Your task to perform on an android device: turn off javascript in the chrome app Image 0: 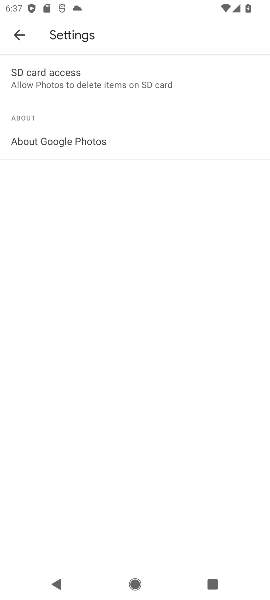
Step 0: press home button
Your task to perform on an android device: turn off javascript in the chrome app Image 1: 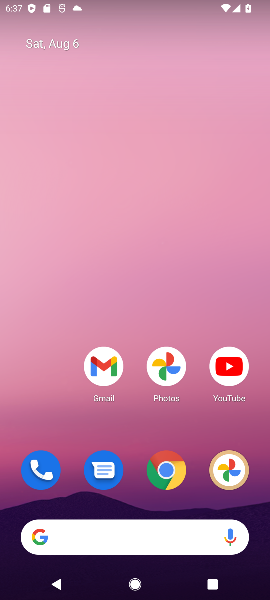
Step 1: drag from (169, 438) to (177, 227)
Your task to perform on an android device: turn off javascript in the chrome app Image 2: 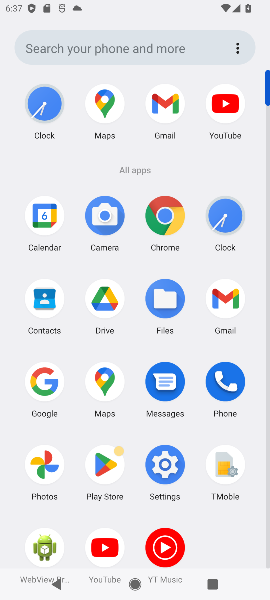
Step 2: press home button
Your task to perform on an android device: turn off javascript in the chrome app Image 3: 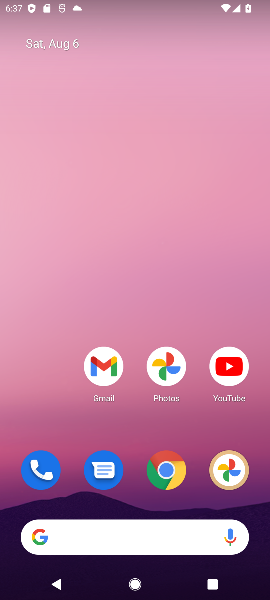
Step 3: drag from (103, 529) to (126, 118)
Your task to perform on an android device: turn off javascript in the chrome app Image 4: 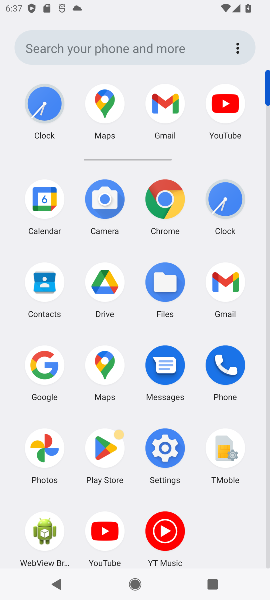
Step 4: click (168, 196)
Your task to perform on an android device: turn off javascript in the chrome app Image 5: 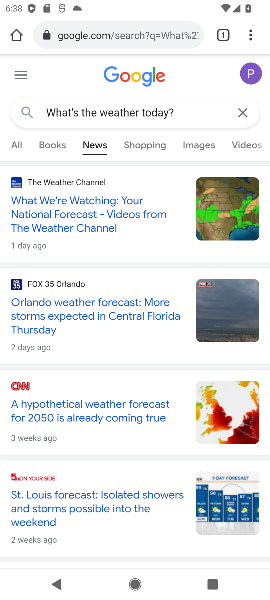
Step 5: drag from (249, 30) to (130, 487)
Your task to perform on an android device: turn off javascript in the chrome app Image 6: 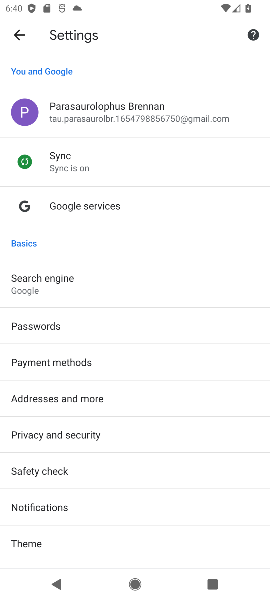
Step 6: drag from (89, 477) to (103, 232)
Your task to perform on an android device: turn off javascript in the chrome app Image 7: 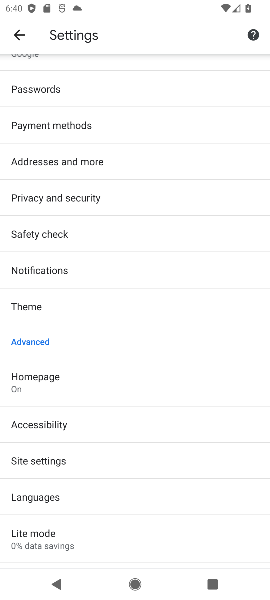
Step 7: click (89, 466)
Your task to perform on an android device: turn off javascript in the chrome app Image 8: 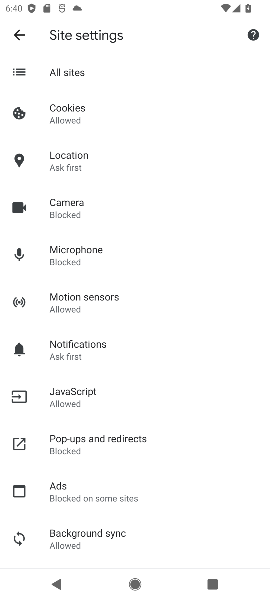
Step 8: click (90, 405)
Your task to perform on an android device: turn off javascript in the chrome app Image 9: 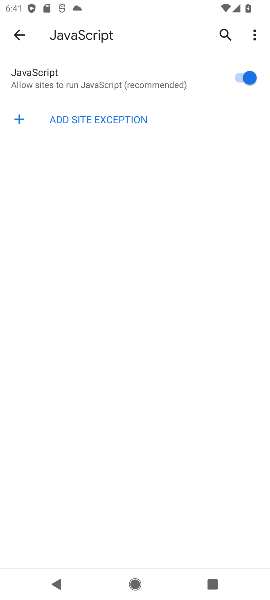
Step 9: click (165, 88)
Your task to perform on an android device: turn off javascript in the chrome app Image 10: 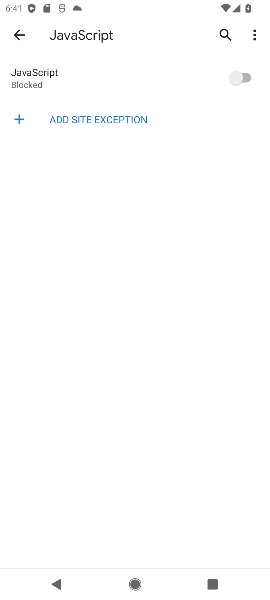
Step 10: task complete